Your task to perform on an android device: turn pop-ups on in chrome Image 0: 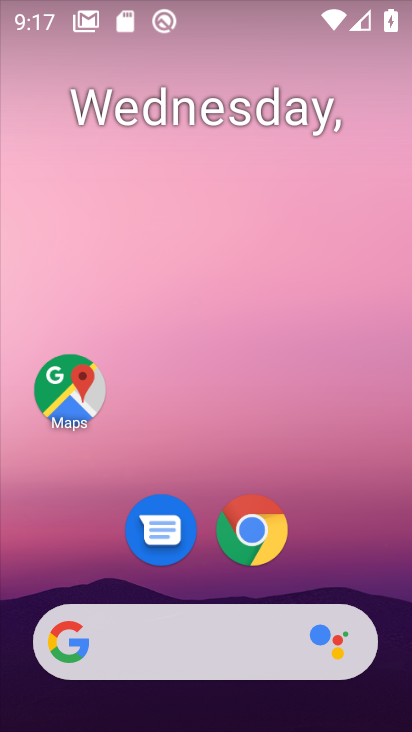
Step 0: drag from (390, 609) to (268, 62)
Your task to perform on an android device: turn pop-ups on in chrome Image 1: 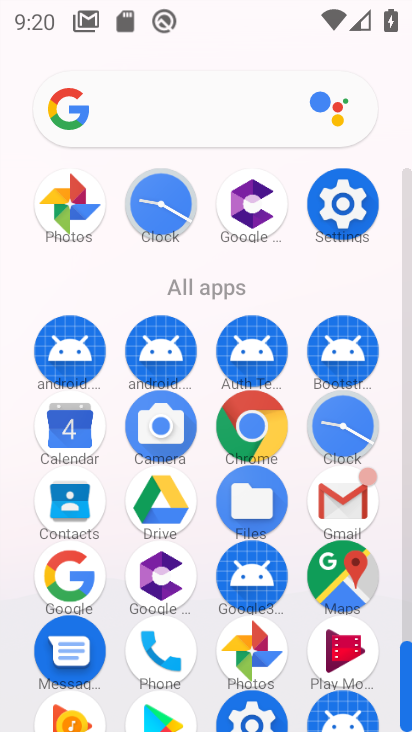
Step 1: click (272, 428)
Your task to perform on an android device: turn pop-ups on in chrome Image 2: 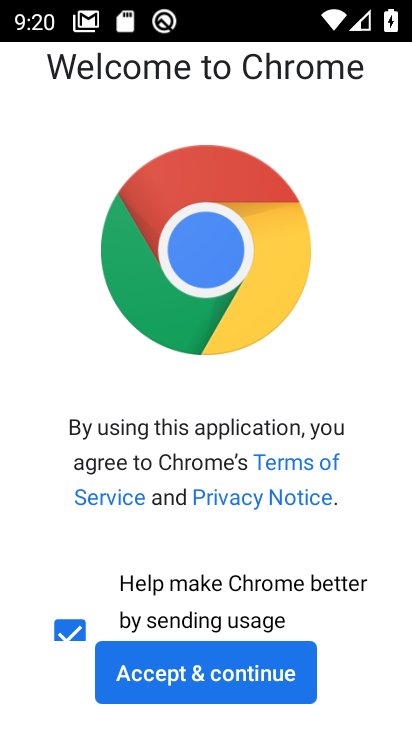
Step 2: click (250, 652)
Your task to perform on an android device: turn pop-ups on in chrome Image 3: 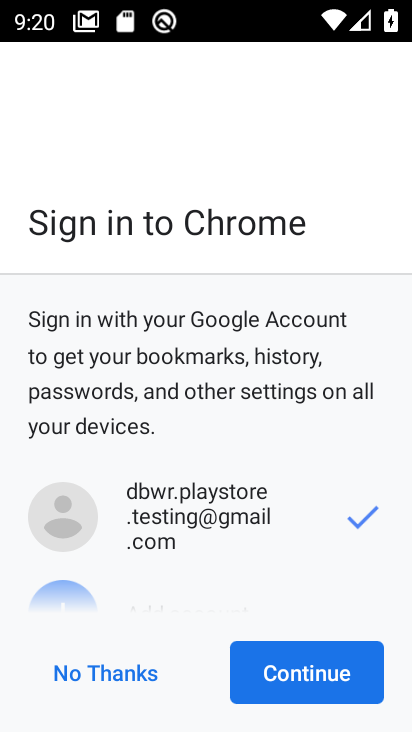
Step 3: click (251, 653)
Your task to perform on an android device: turn pop-ups on in chrome Image 4: 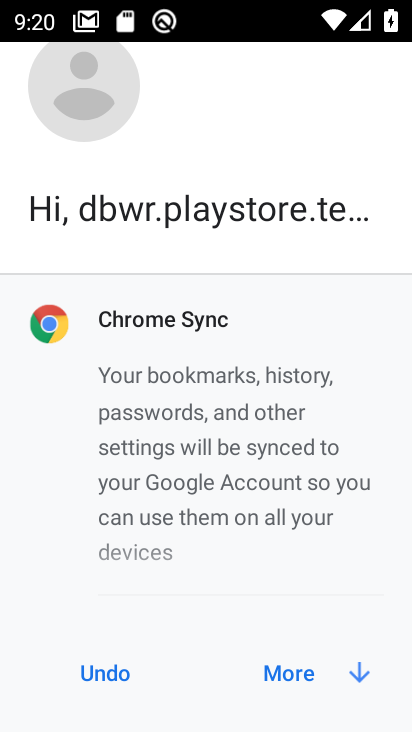
Step 4: click (298, 678)
Your task to perform on an android device: turn pop-ups on in chrome Image 5: 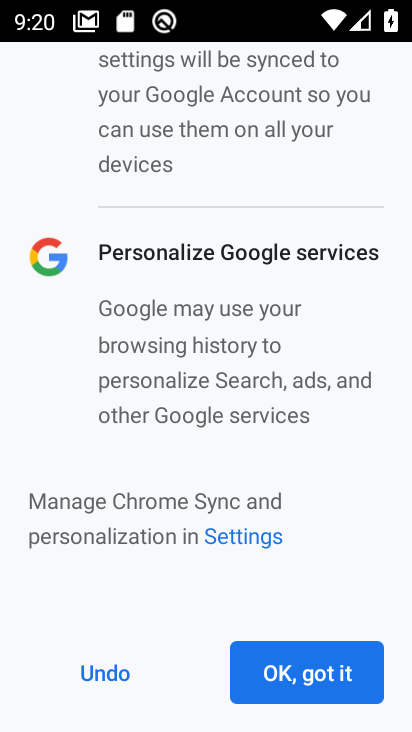
Step 5: click (298, 678)
Your task to perform on an android device: turn pop-ups on in chrome Image 6: 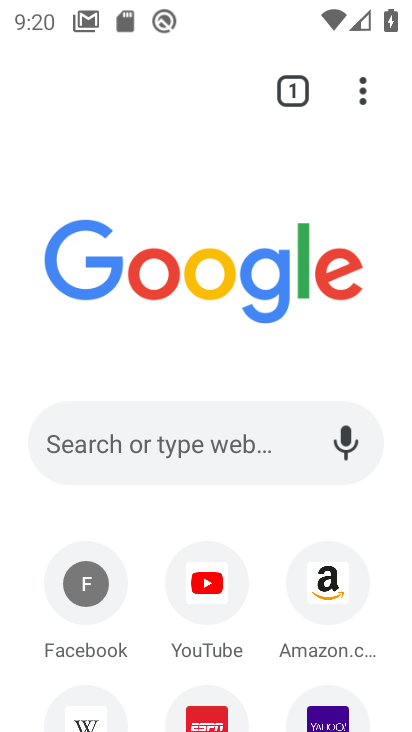
Step 6: click (363, 86)
Your task to perform on an android device: turn pop-ups on in chrome Image 7: 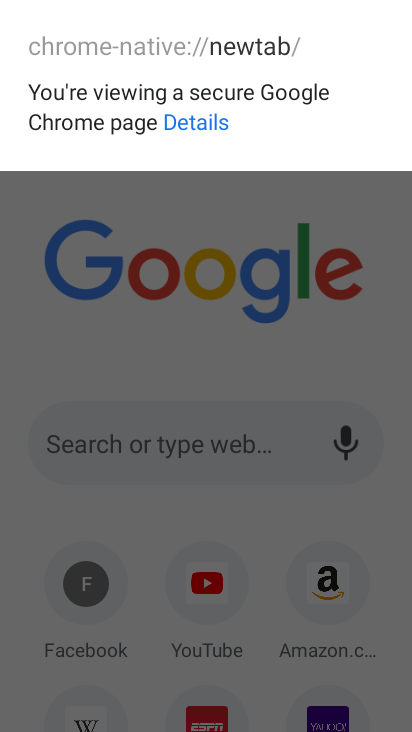
Step 7: click (363, 86)
Your task to perform on an android device: turn pop-ups on in chrome Image 8: 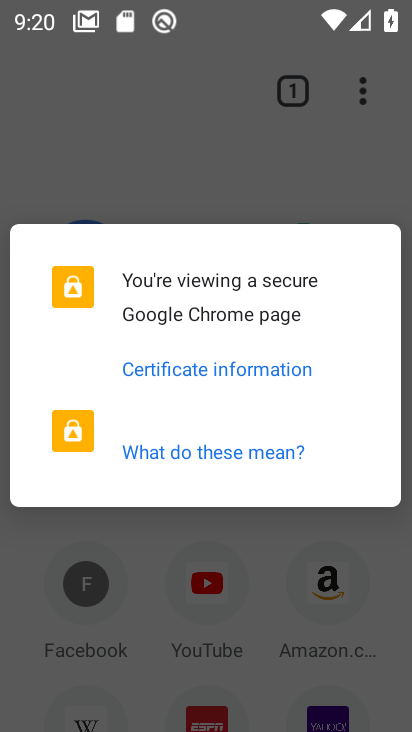
Step 8: click (341, 114)
Your task to perform on an android device: turn pop-ups on in chrome Image 9: 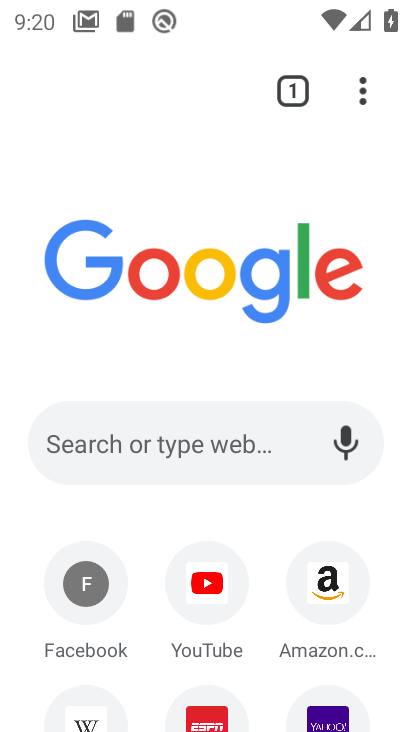
Step 9: click (363, 83)
Your task to perform on an android device: turn pop-ups on in chrome Image 10: 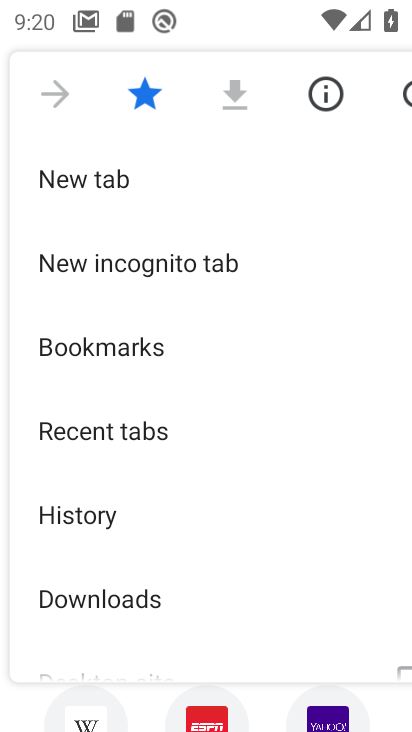
Step 10: drag from (150, 597) to (195, 184)
Your task to perform on an android device: turn pop-ups on in chrome Image 11: 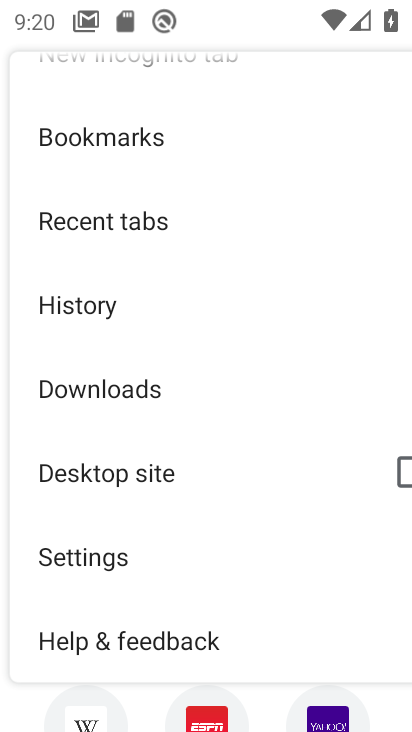
Step 11: click (104, 561)
Your task to perform on an android device: turn pop-ups on in chrome Image 12: 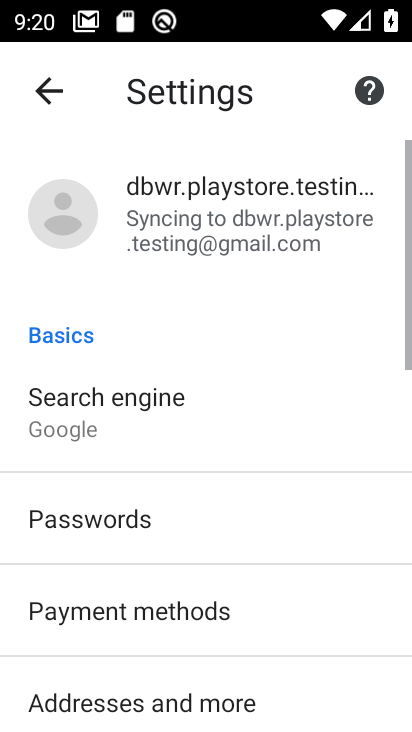
Step 12: drag from (76, 649) to (204, 93)
Your task to perform on an android device: turn pop-ups on in chrome Image 13: 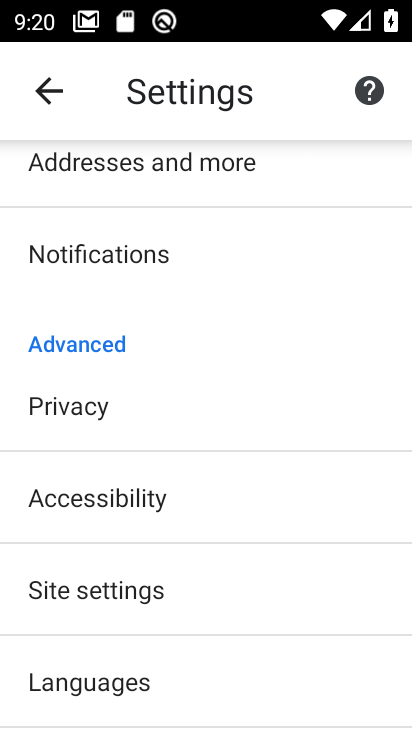
Step 13: click (154, 592)
Your task to perform on an android device: turn pop-ups on in chrome Image 14: 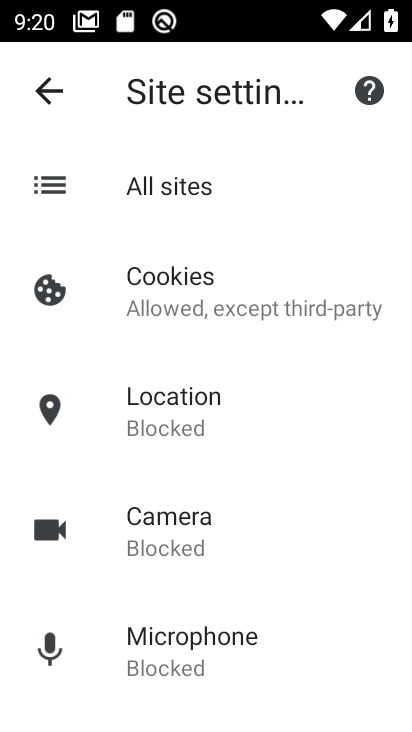
Step 14: drag from (142, 644) to (197, 195)
Your task to perform on an android device: turn pop-ups on in chrome Image 15: 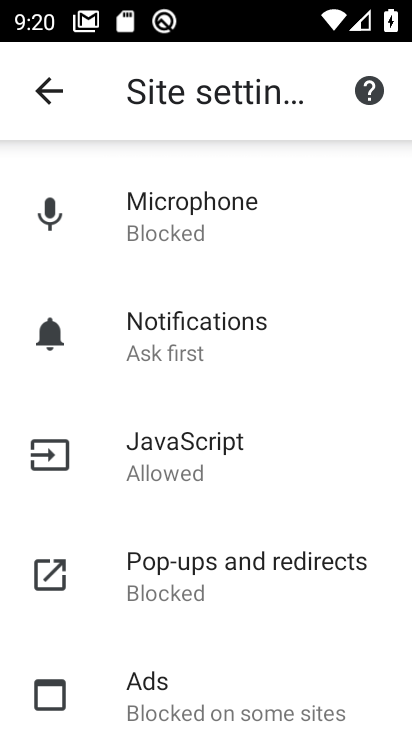
Step 15: click (204, 611)
Your task to perform on an android device: turn pop-ups on in chrome Image 16: 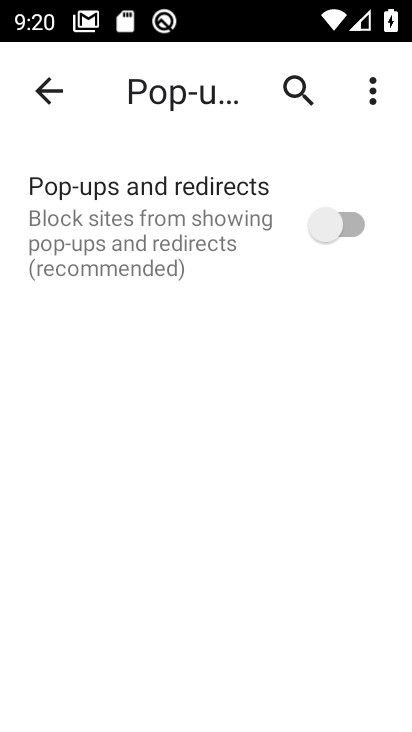
Step 16: click (293, 250)
Your task to perform on an android device: turn pop-ups on in chrome Image 17: 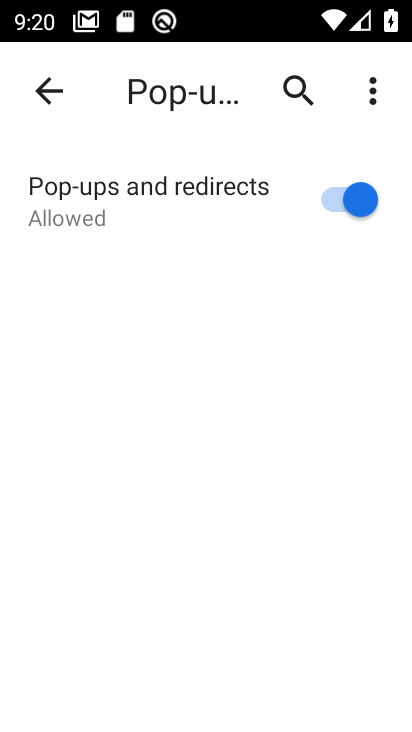
Step 17: task complete